Your task to perform on an android device: open app "Google News" Image 0: 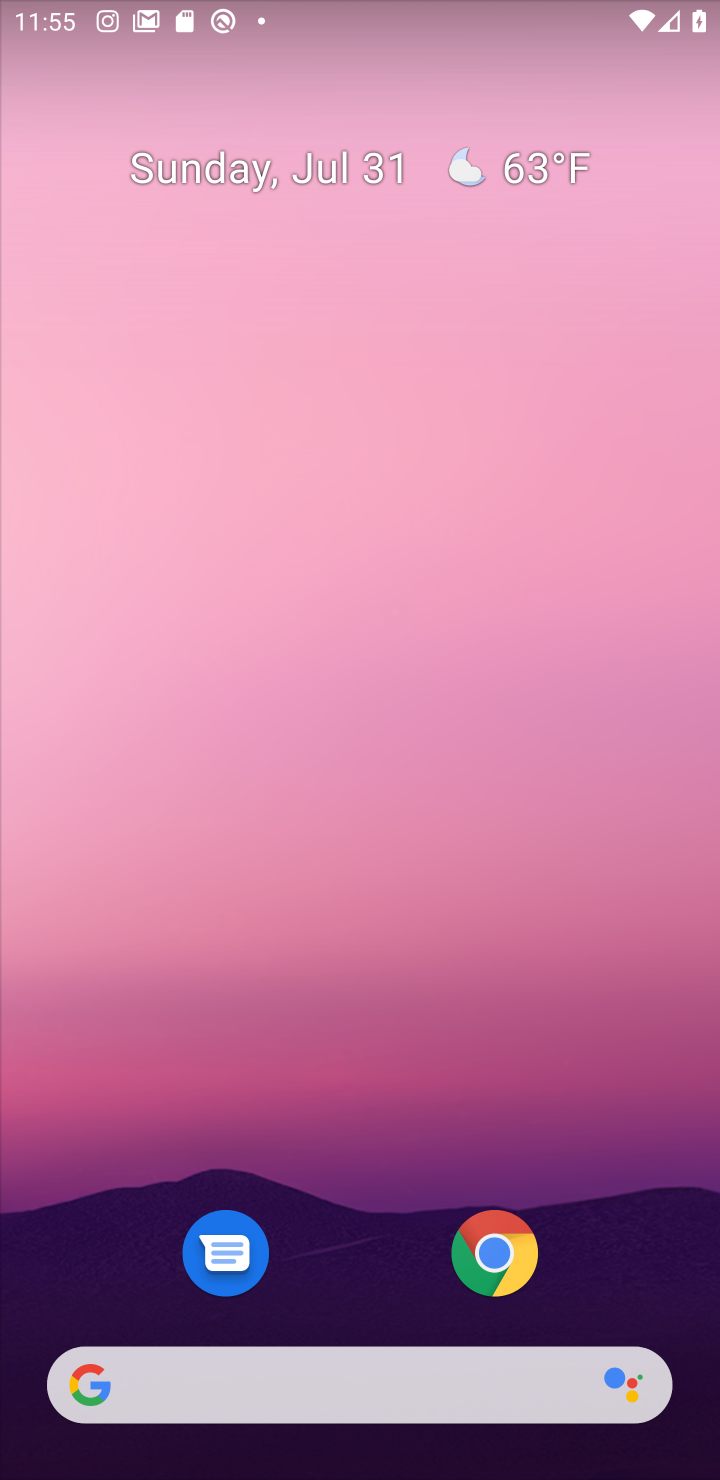
Step 0: drag from (352, 899) to (343, 195)
Your task to perform on an android device: open app "Google News" Image 1: 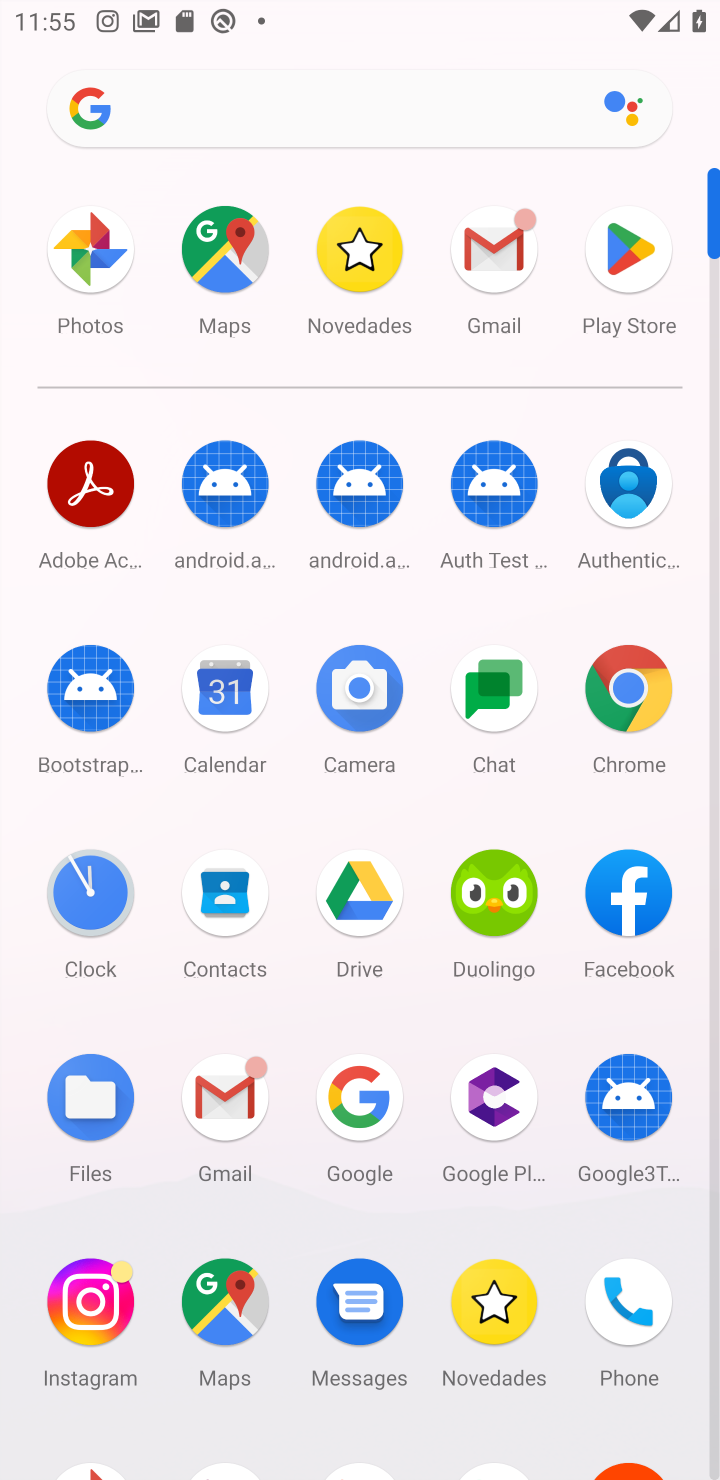
Step 1: drag from (307, 1191) to (342, 405)
Your task to perform on an android device: open app "Google News" Image 2: 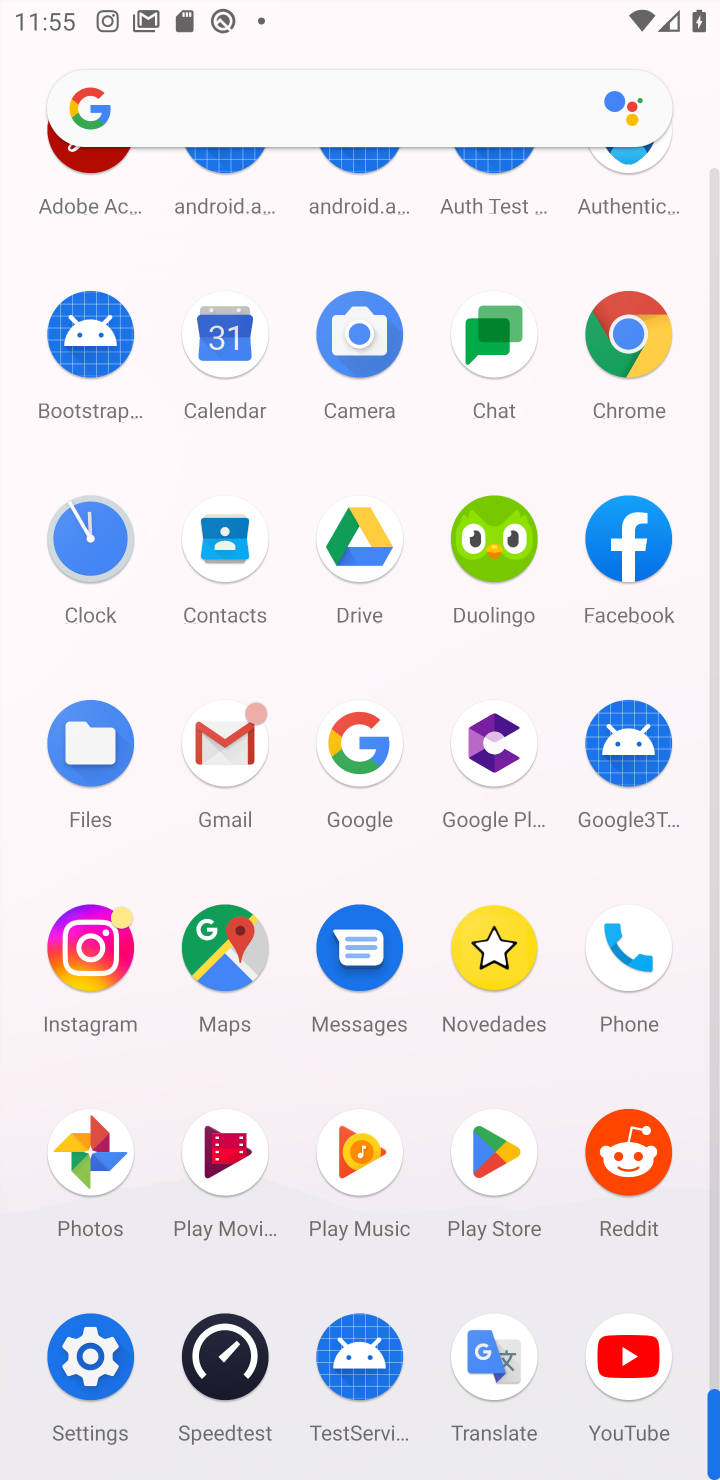
Step 2: click (515, 1157)
Your task to perform on an android device: open app "Google News" Image 3: 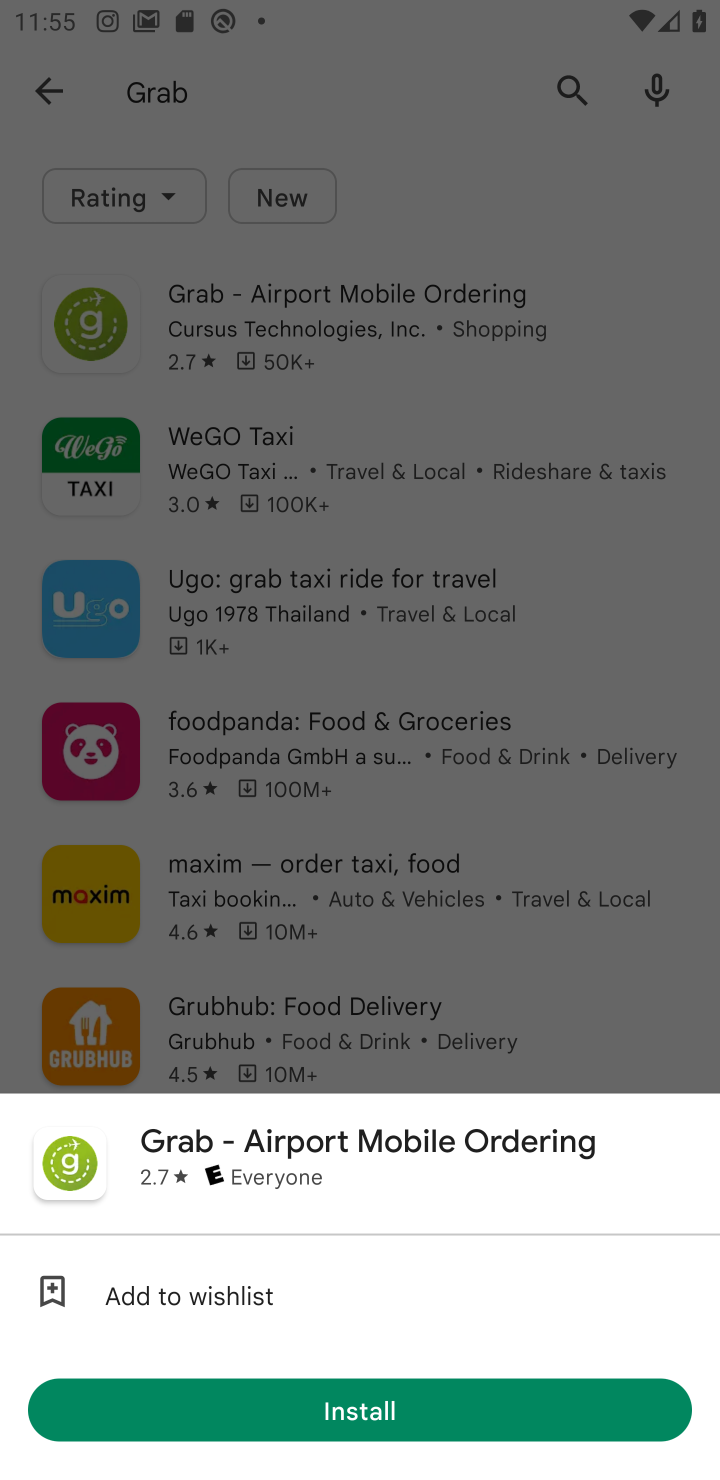
Step 3: press back button
Your task to perform on an android device: open app "Google News" Image 4: 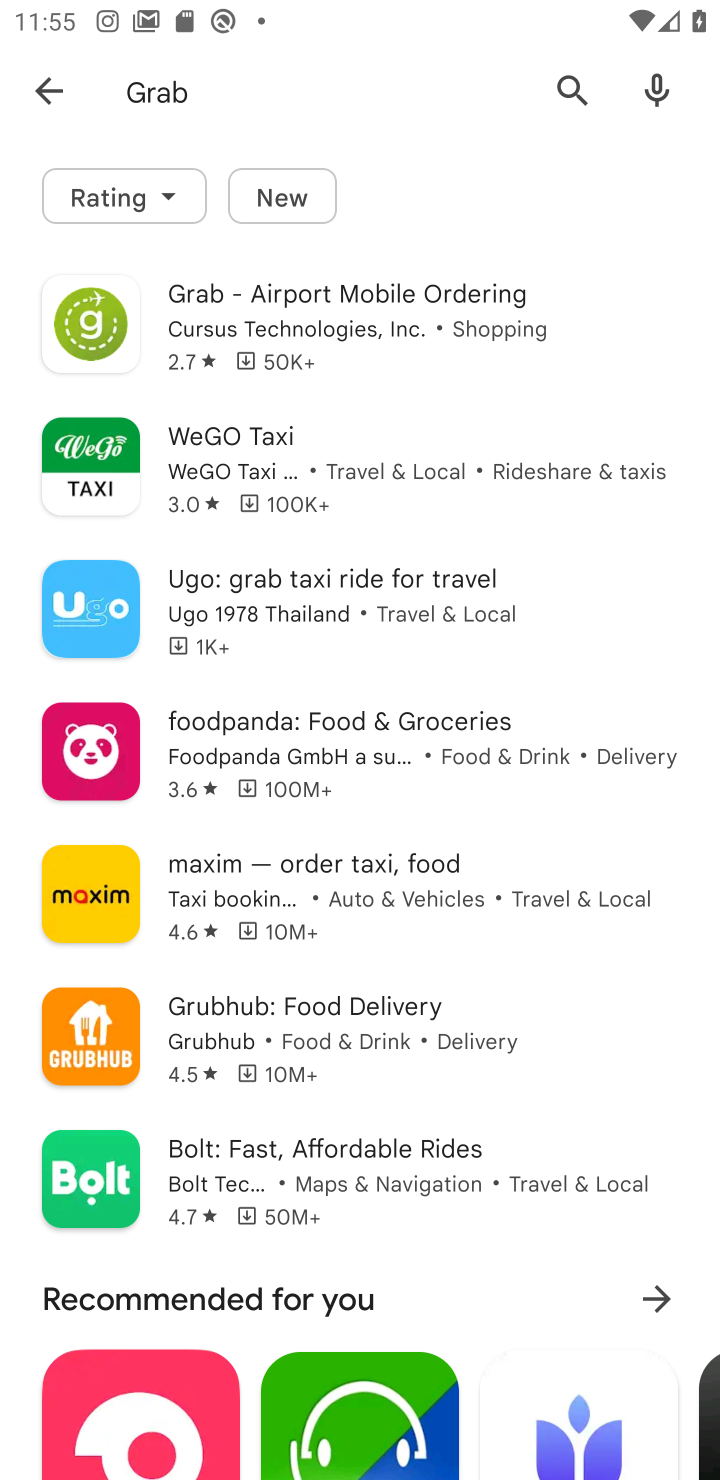
Step 4: click (445, 67)
Your task to perform on an android device: open app "Google News" Image 5: 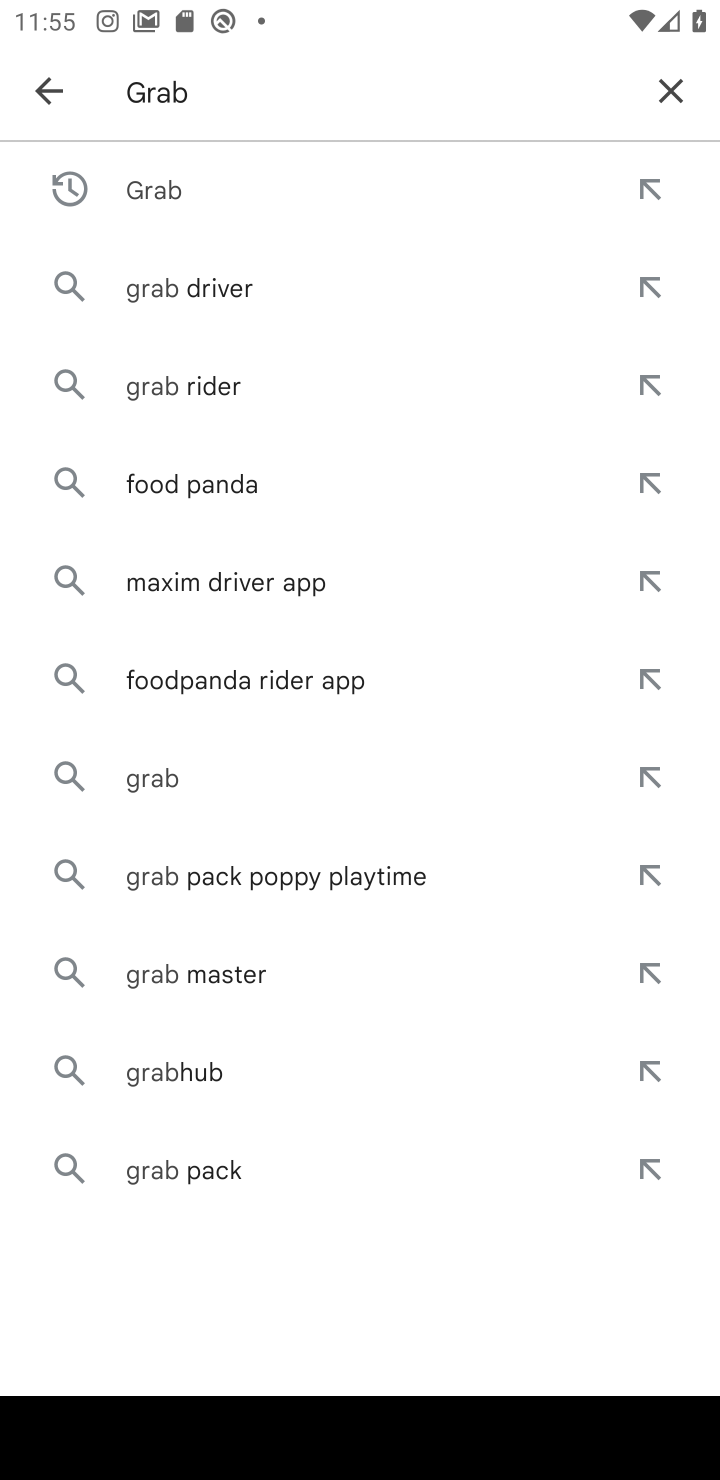
Step 5: click (662, 91)
Your task to perform on an android device: open app "Google News" Image 6: 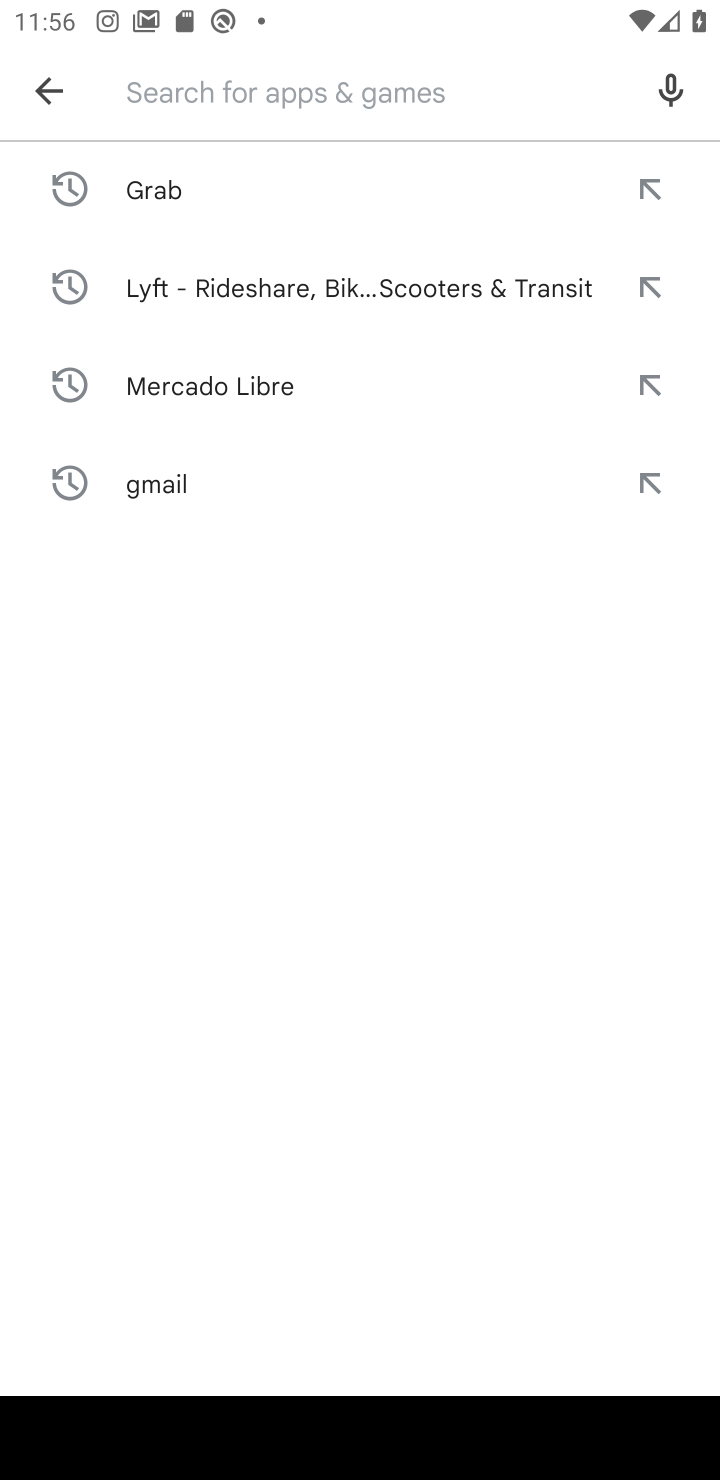
Step 6: type "Google News"
Your task to perform on an android device: open app "Google News" Image 7: 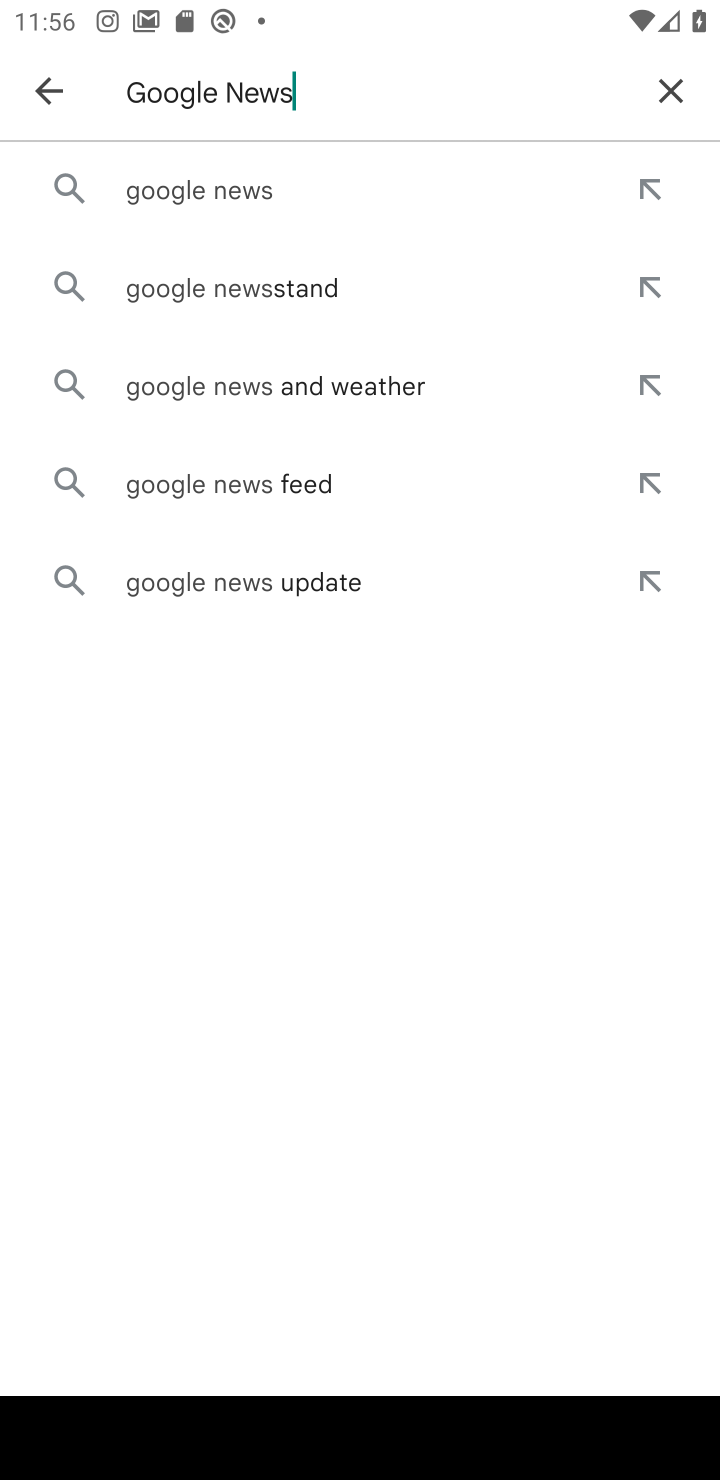
Step 7: press enter
Your task to perform on an android device: open app "Google News" Image 8: 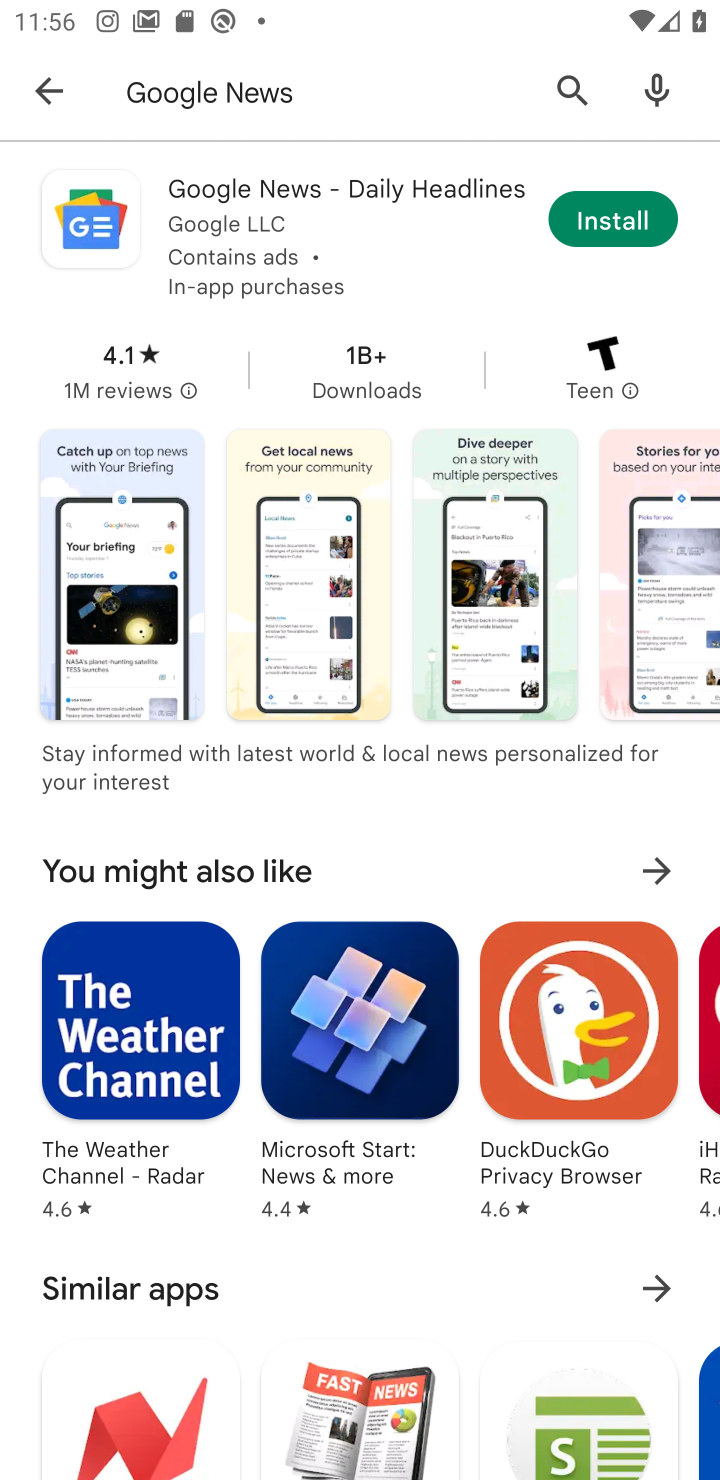
Step 8: task complete